Your task to perform on an android device: Go to display settings Image 0: 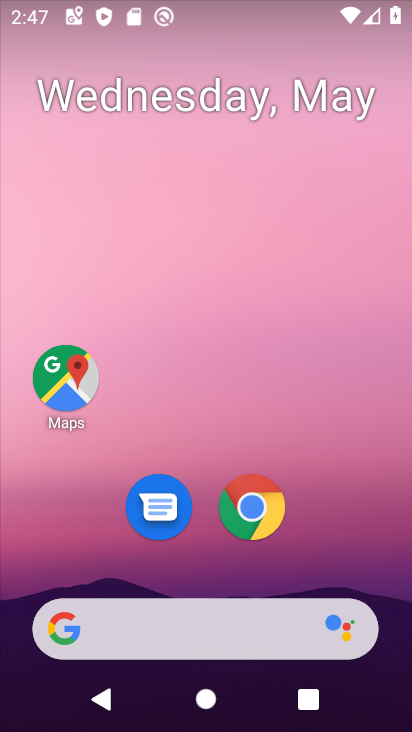
Step 0: drag from (218, 573) to (263, 4)
Your task to perform on an android device: Go to display settings Image 1: 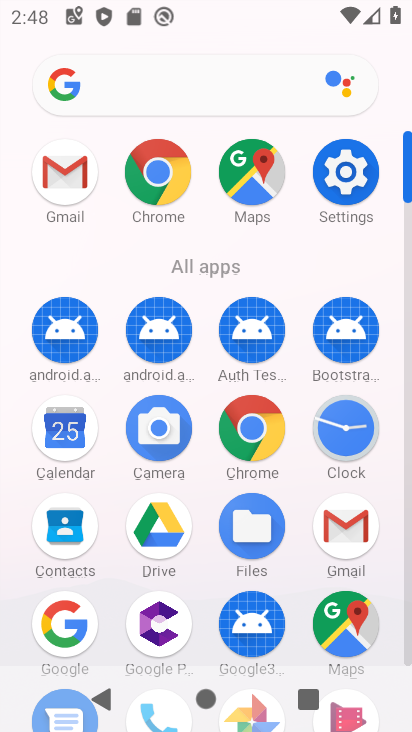
Step 1: click (345, 211)
Your task to perform on an android device: Go to display settings Image 2: 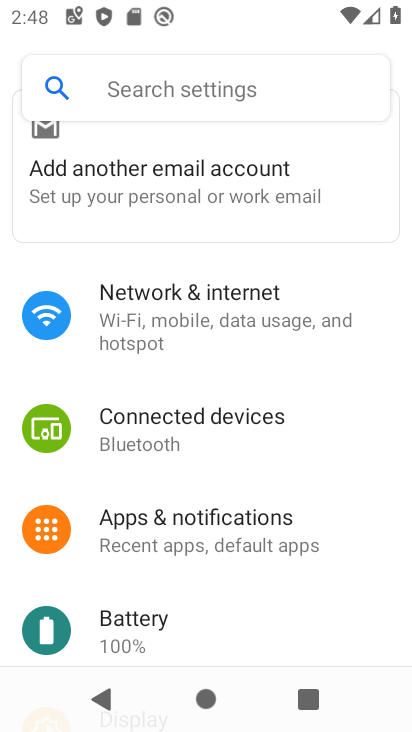
Step 2: drag from (229, 523) to (258, 305)
Your task to perform on an android device: Go to display settings Image 3: 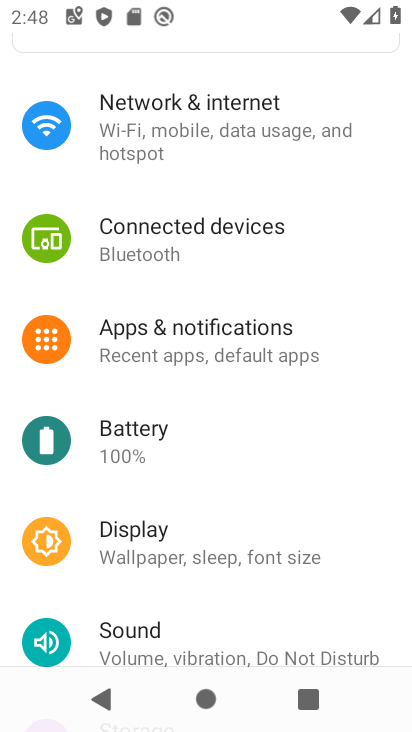
Step 3: click (196, 556)
Your task to perform on an android device: Go to display settings Image 4: 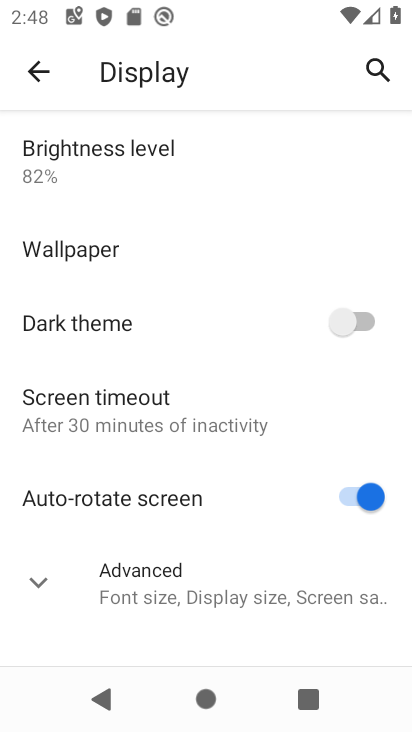
Step 4: task complete